Your task to perform on an android device: Show me recent news Image 0: 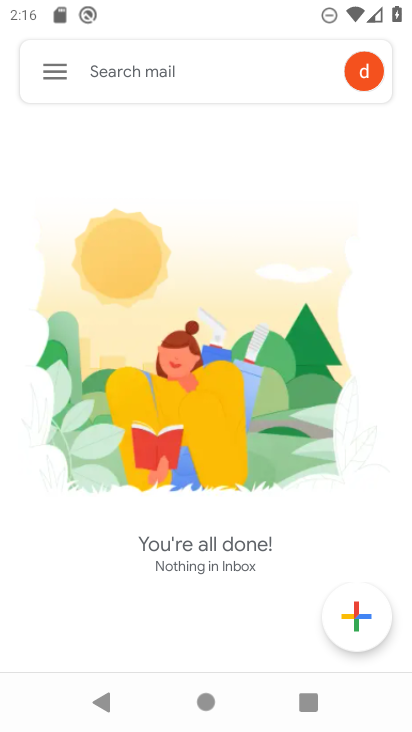
Step 0: press back button
Your task to perform on an android device: Show me recent news Image 1: 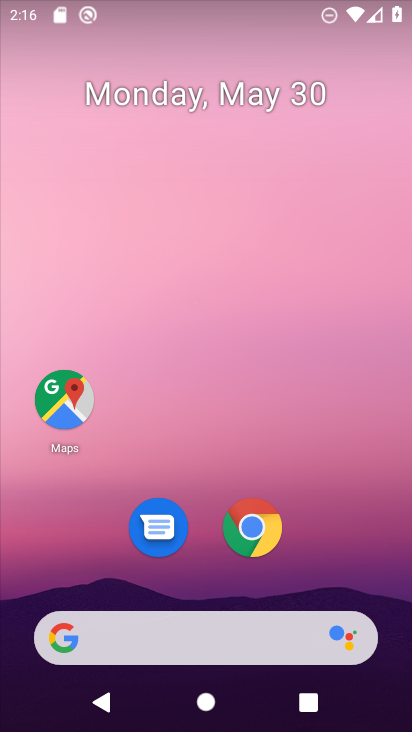
Step 1: drag from (229, 562) to (142, 209)
Your task to perform on an android device: Show me recent news Image 2: 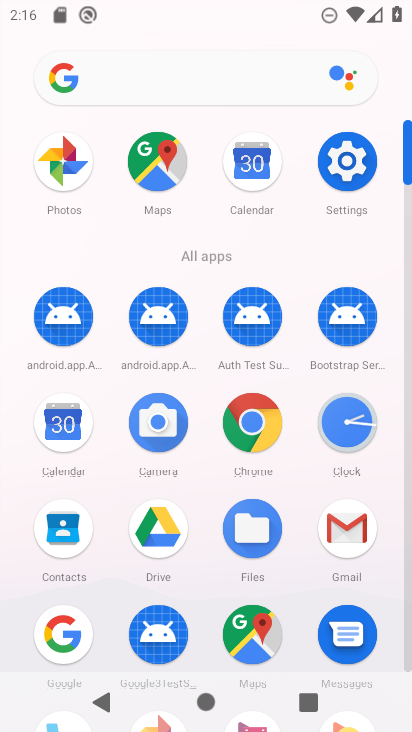
Step 2: press home button
Your task to perform on an android device: Show me recent news Image 3: 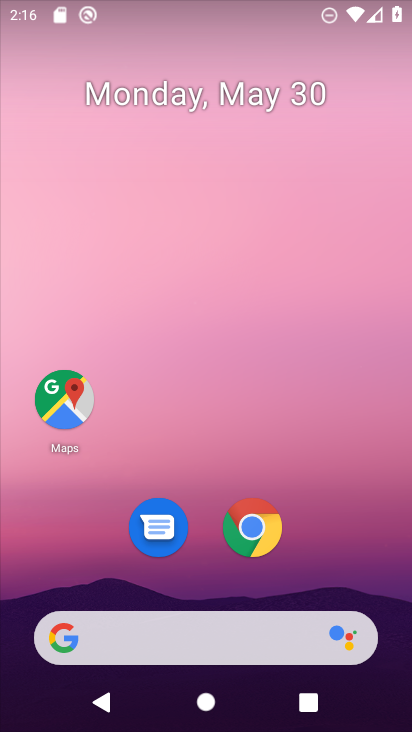
Step 3: drag from (1, 246) to (407, 491)
Your task to perform on an android device: Show me recent news Image 4: 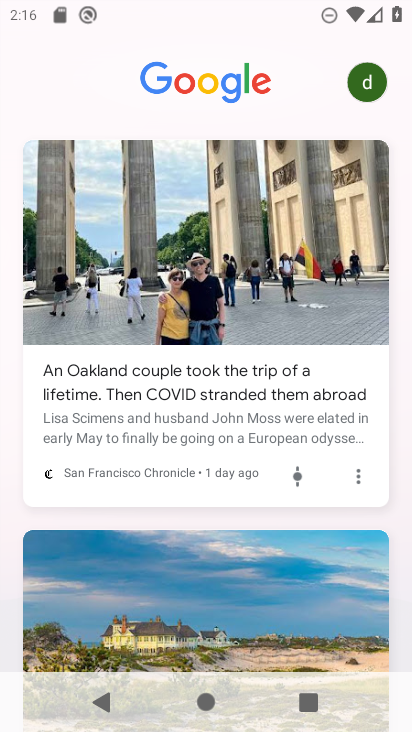
Step 4: drag from (226, 391) to (226, 227)
Your task to perform on an android device: Show me recent news Image 5: 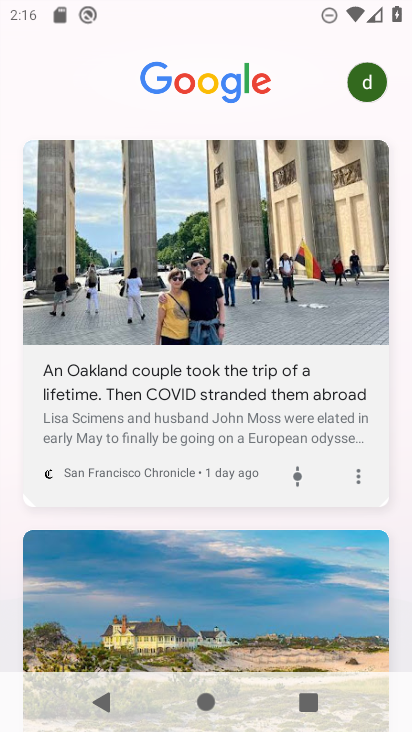
Step 5: drag from (203, 409) to (222, 231)
Your task to perform on an android device: Show me recent news Image 6: 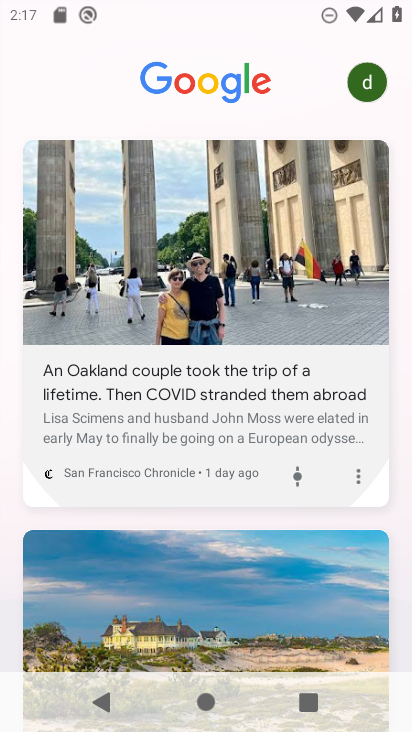
Step 6: drag from (240, 395) to (240, 219)
Your task to perform on an android device: Show me recent news Image 7: 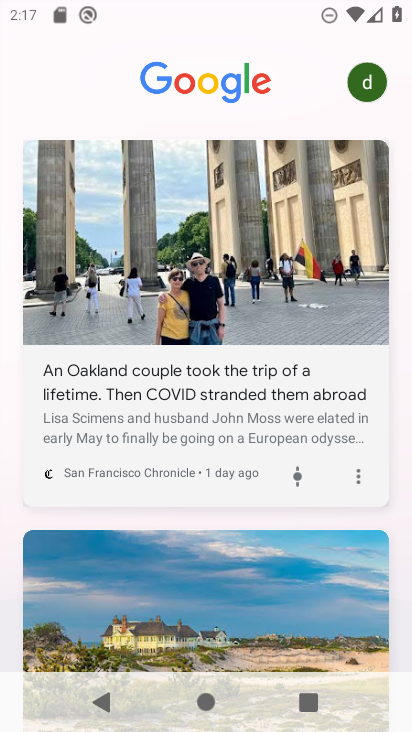
Step 7: click (231, 258)
Your task to perform on an android device: Show me recent news Image 8: 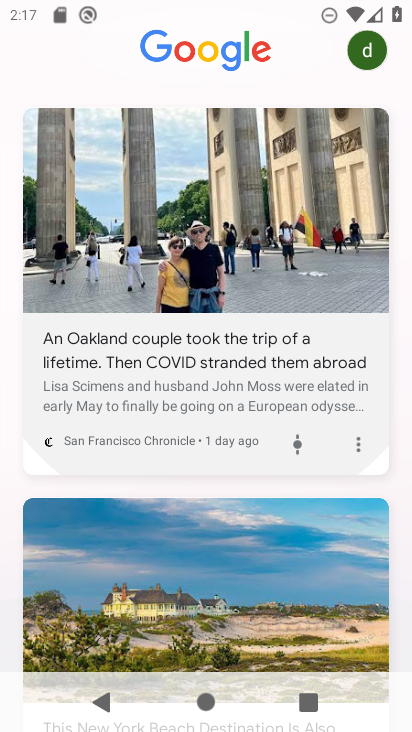
Step 8: click (226, 251)
Your task to perform on an android device: Show me recent news Image 9: 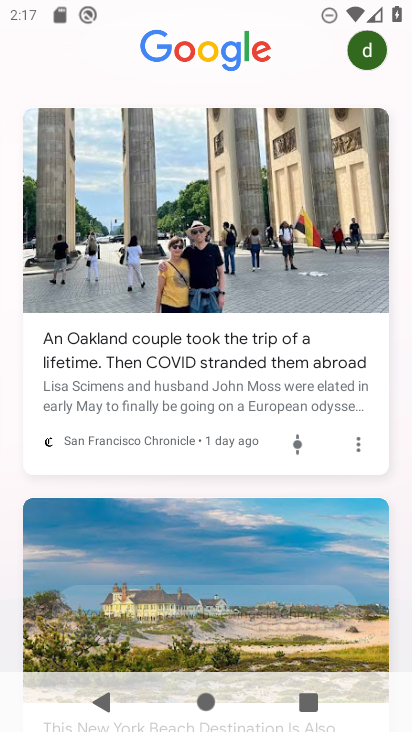
Step 9: drag from (220, 318) to (201, 191)
Your task to perform on an android device: Show me recent news Image 10: 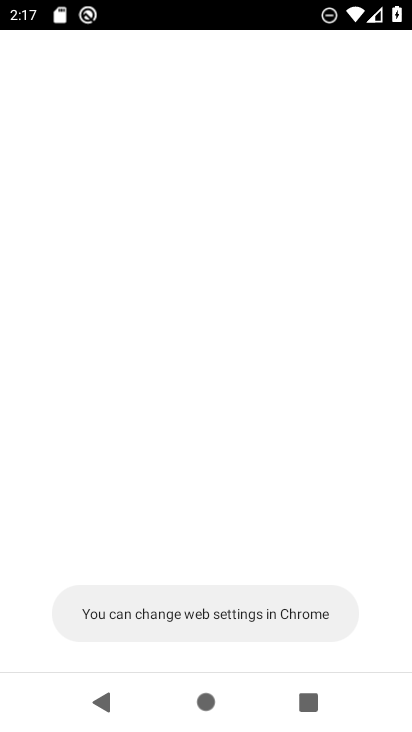
Step 10: drag from (167, 394) to (167, 197)
Your task to perform on an android device: Show me recent news Image 11: 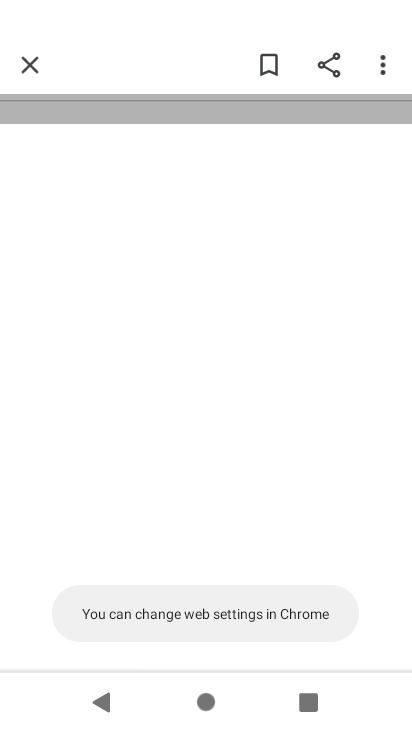
Step 11: drag from (214, 371) to (205, 247)
Your task to perform on an android device: Show me recent news Image 12: 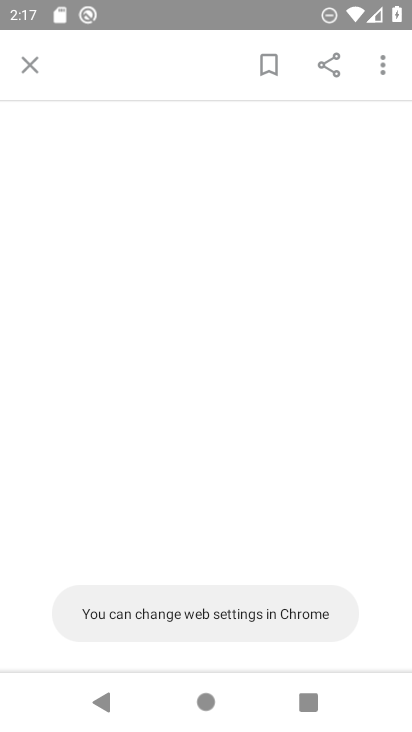
Step 12: drag from (240, 432) to (240, 258)
Your task to perform on an android device: Show me recent news Image 13: 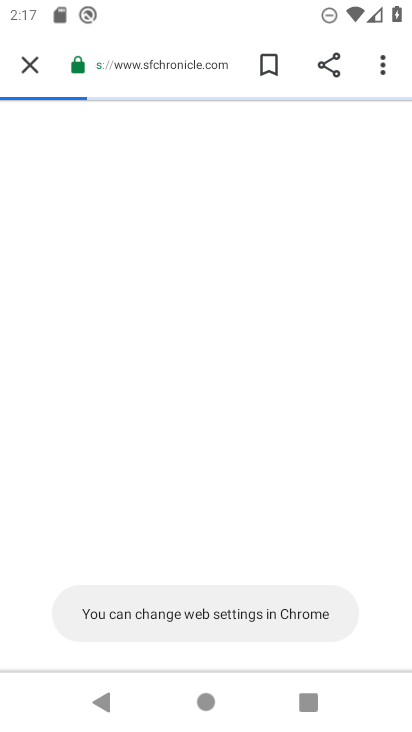
Step 13: press back button
Your task to perform on an android device: Show me recent news Image 14: 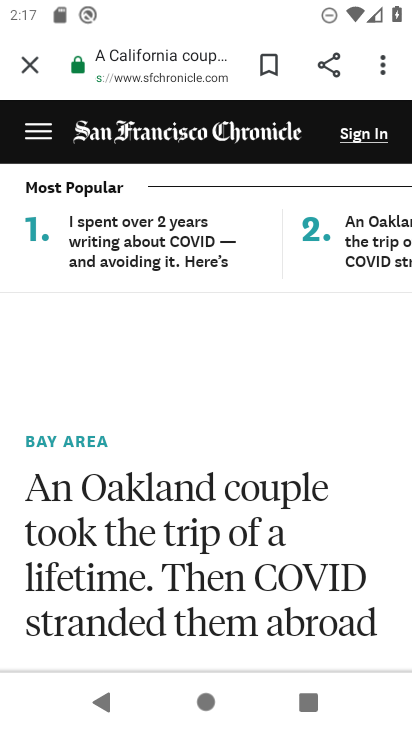
Step 14: drag from (146, 458) to (146, 236)
Your task to perform on an android device: Show me recent news Image 15: 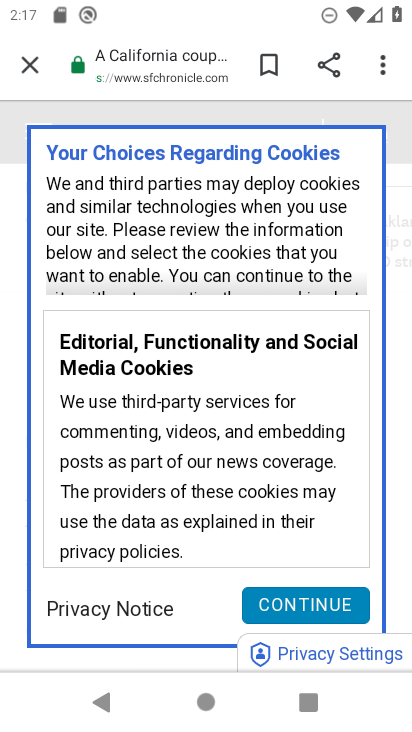
Step 15: drag from (190, 404) to (205, 293)
Your task to perform on an android device: Show me recent news Image 16: 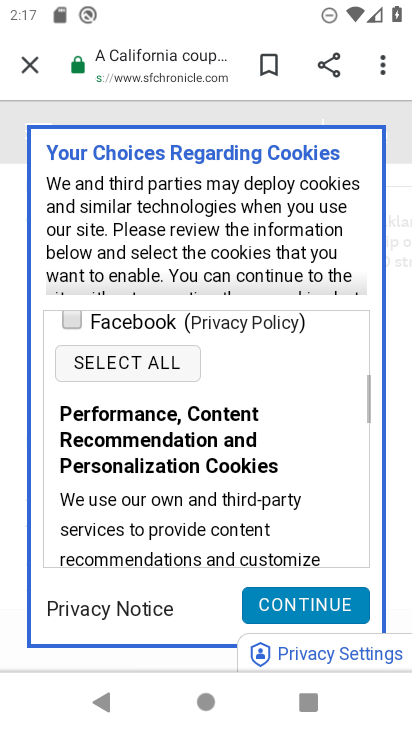
Step 16: drag from (235, 488) to (235, 232)
Your task to perform on an android device: Show me recent news Image 17: 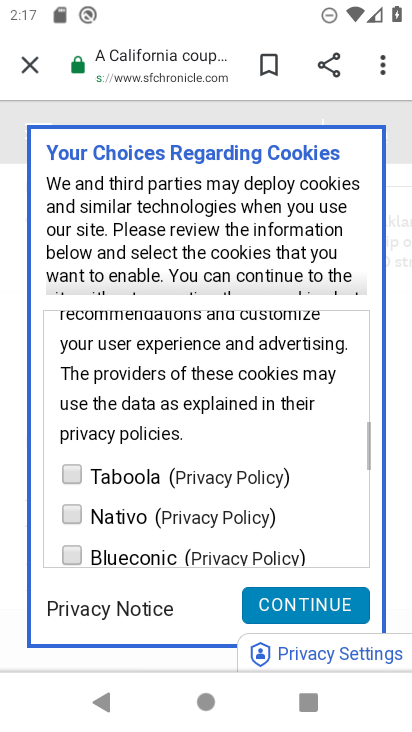
Step 17: drag from (224, 476) to (224, 241)
Your task to perform on an android device: Show me recent news Image 18: 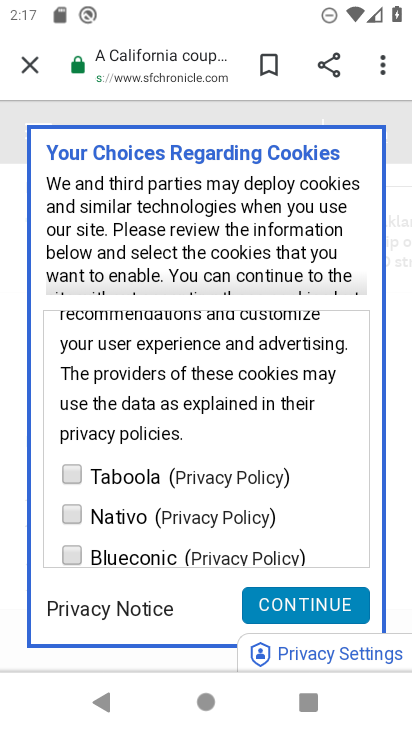
Step 18: drag from (207, 403) to (207, 224)
Your task to perform on an android device: Show me recent news Image 19: 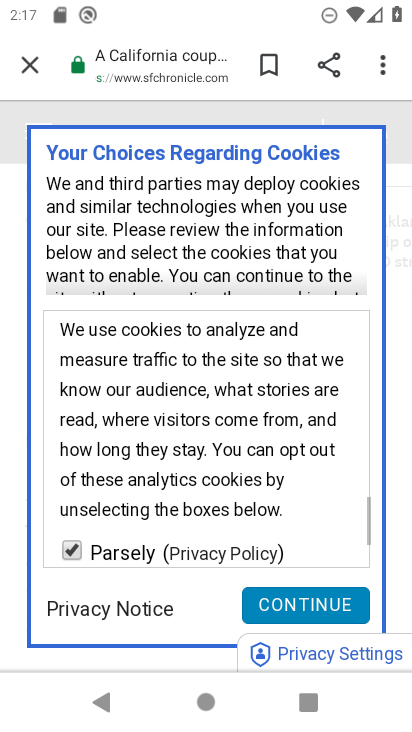
Step 19: drag from (155, 362) to (148, 245)
Your task to perform on an android device: Show me recent news Image 20: 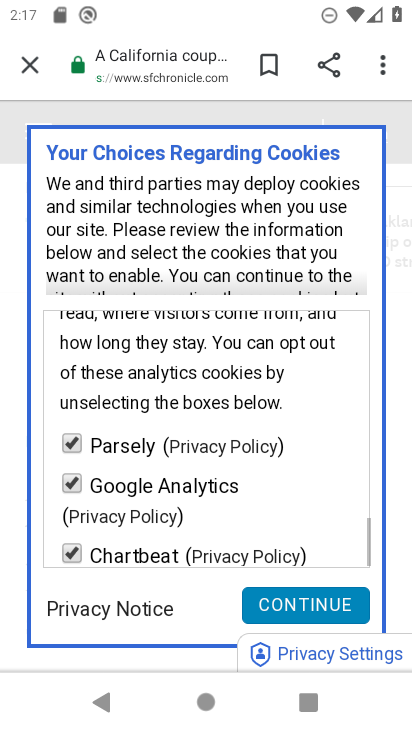
Step 20: drag from (262, 335) to (281, 227)
Your task to perform on an android device: Show me recent news Image 21: 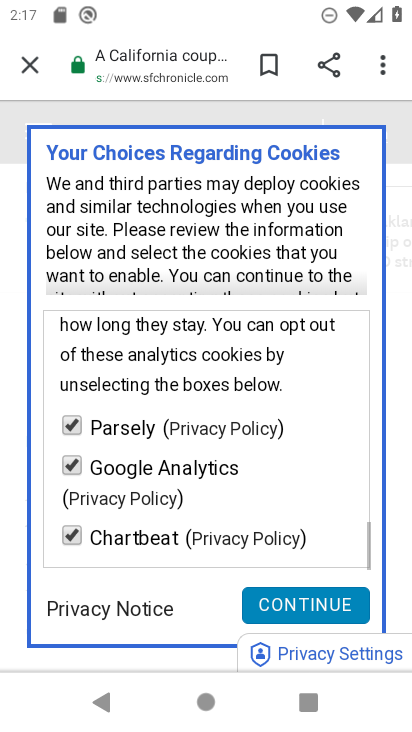
Step 21: click (210, 215)
Your task to perform on an android device: Show me recent news Image 22: 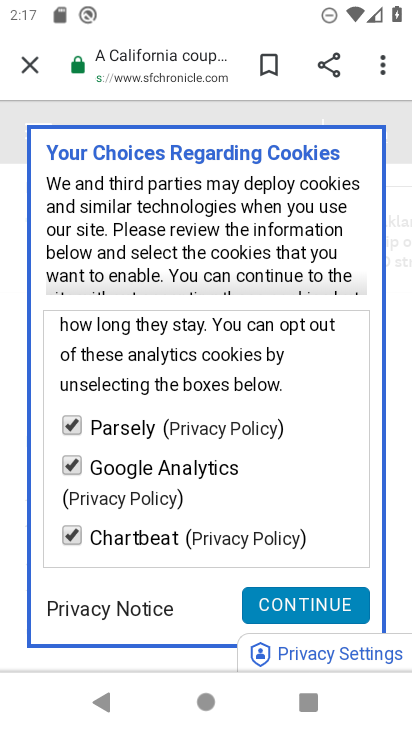
Step 22: task complete